Your task to perform on an android device: Set the phone to "Do not disturb". Image 0: 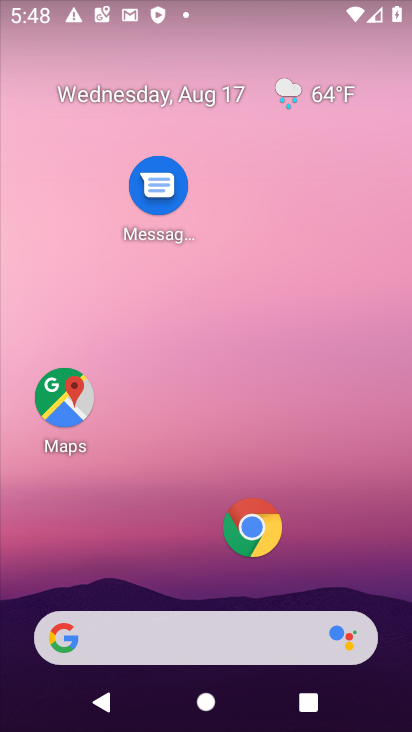
Step 0: drag from (146, 612) to (145, 290)
Your task to perform on an android device: Set the phone to "Do not disturb". Image 1: 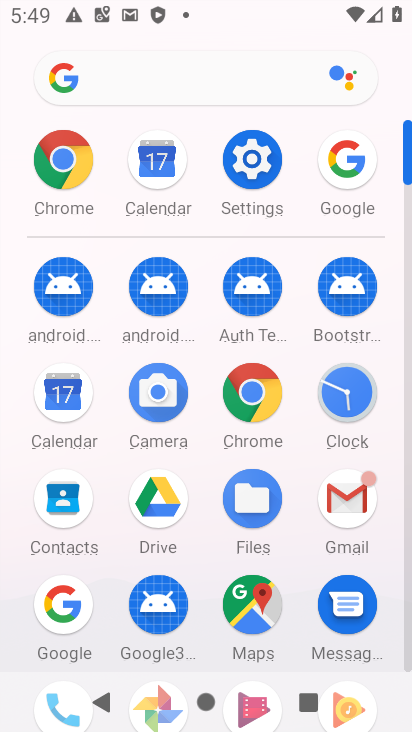
Step 1: click (253, 166)
Your task to perform on an android device: Set the phone to "Do not disturb". Image 2: 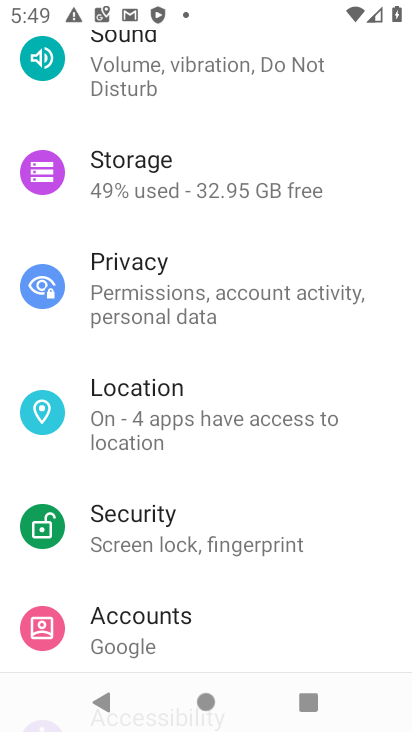
Step 2: click (229, 83)
Your task to perform on an android device: Set the phone to "Do not disturb". Image 3: 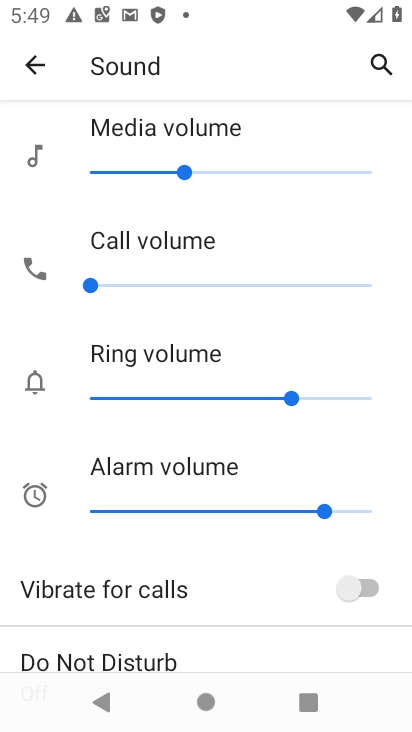
Step 3: click (145, 663)
Your task to perform on an android device: Set the phone to "Do not disturb". Image 4: 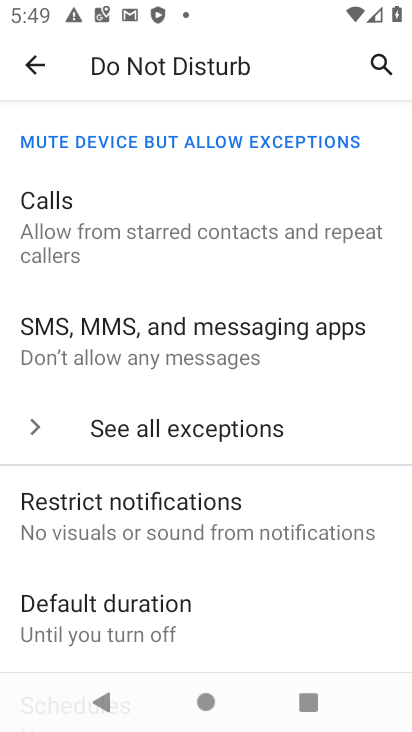
Step 4: drag from (133, 576) to (145, 303)
Your task to perform on an android device: Set the phone to "Do not disturb". Image 5: 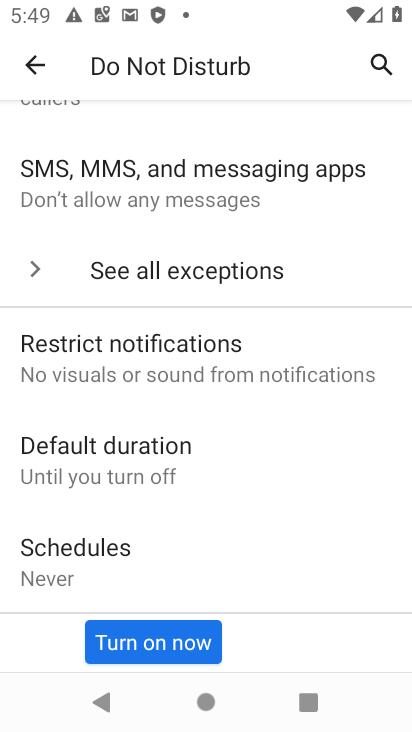
Step 5: click (124, 635)
Your task to perform on an android device: Set the phone to "Do not disturb". Image 6: 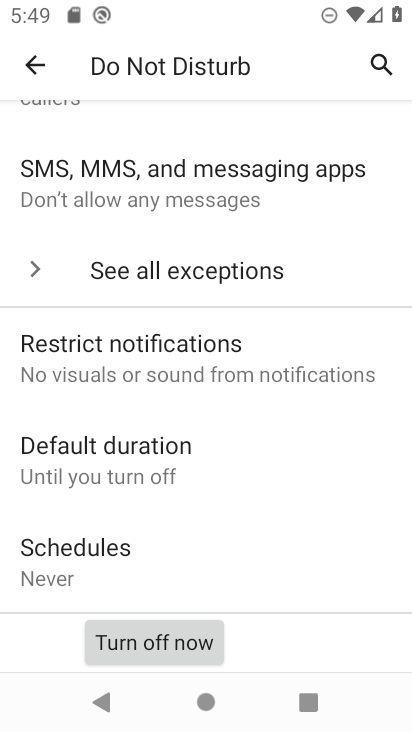
Step 6: task complete